Your task to perform on an android device: empty trash in google photos Image 0: 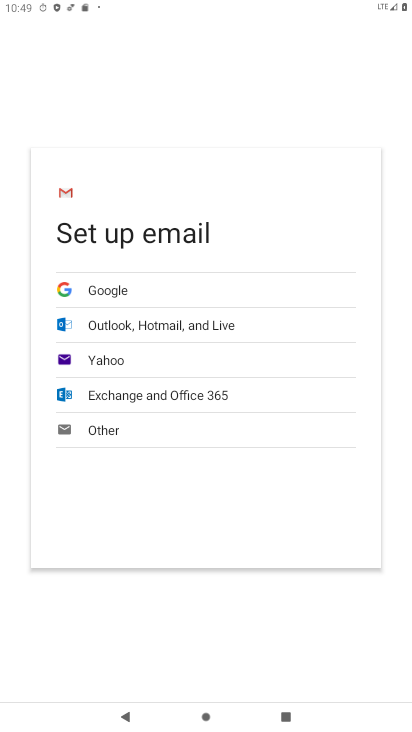
Step 0: press back button
Your task to perform on an android device: empty trash in google photos Image 1: 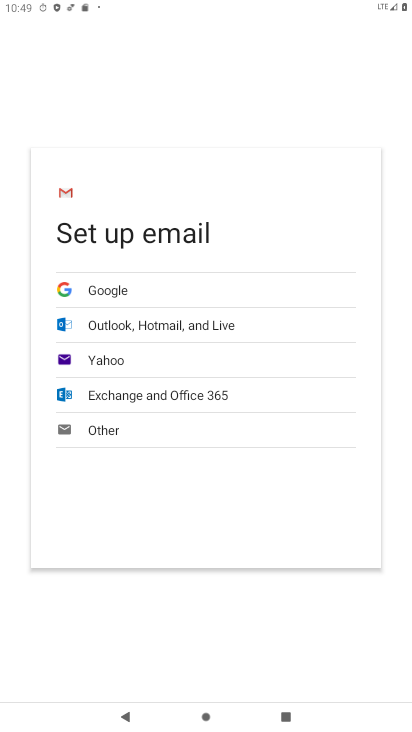
Step 1: press back button
Your task to perform on an android device: empty trash in google photos Image 2: 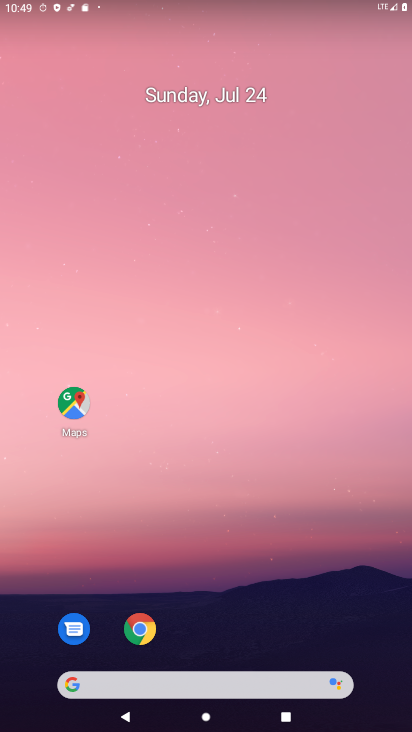
Step 2: drag from (270, 470) to (270, 194)
Your task to perform on an android device: empty trash in google photos Image 3: 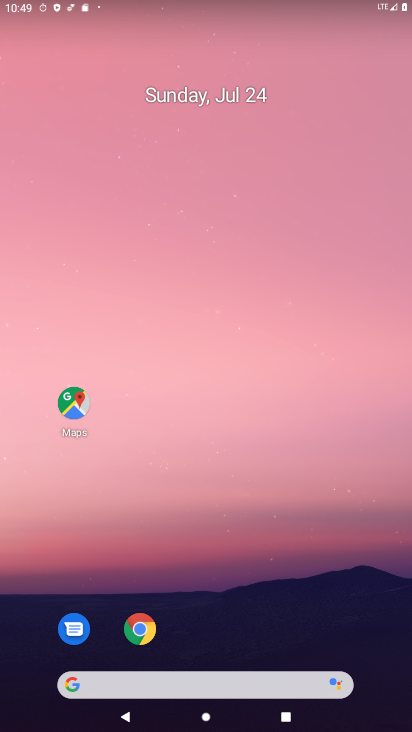
Step 3: drag from (239, 631) to (138, 351)
Your task to perform on an android device: empty trash in google photos Image 4: 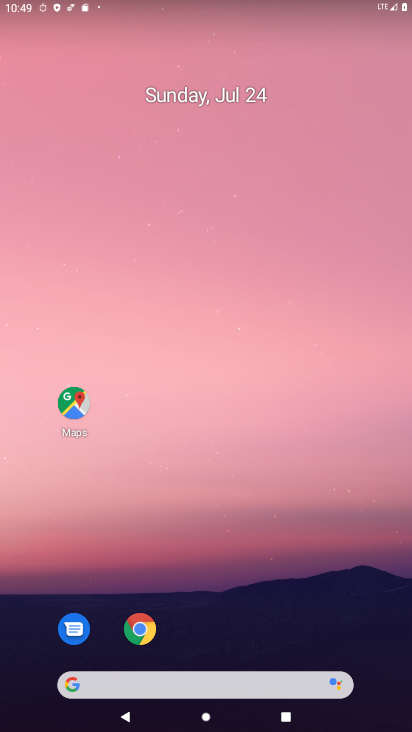
Step 4: drag from (215, 608) to (116, 198)
Your task to perform on an android device: empty trash in google photos Image 5: 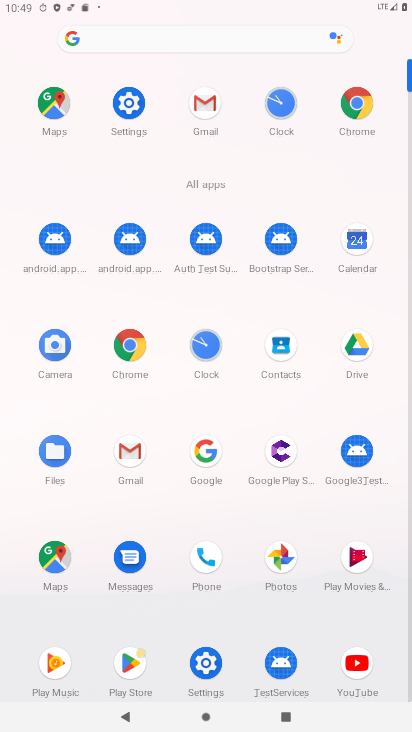
Step 5: drag from (199, 487) to (170, 163)
Your task to perform on an android device: empty trash in google photos Image 6: 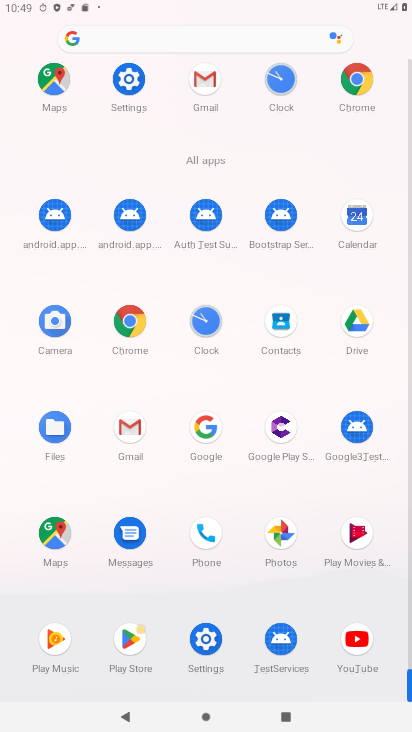
Step 6: click (287, 531)
Your task to perform on an android device: empty trash in google photos Image 7: 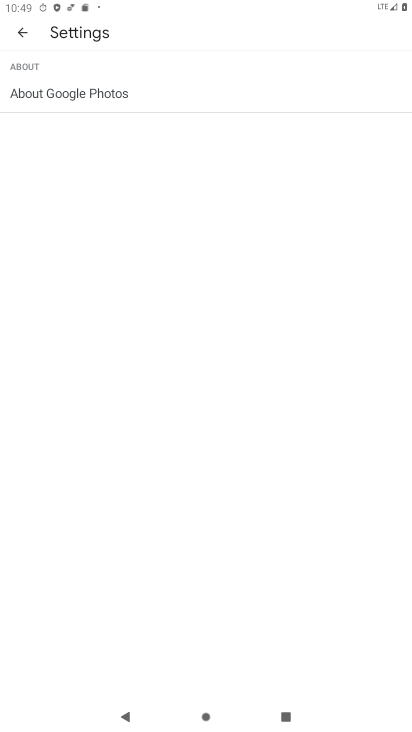
Step 7: click (22, 39)
Your task to perform on an android device: empty trash in google photos Image 8: 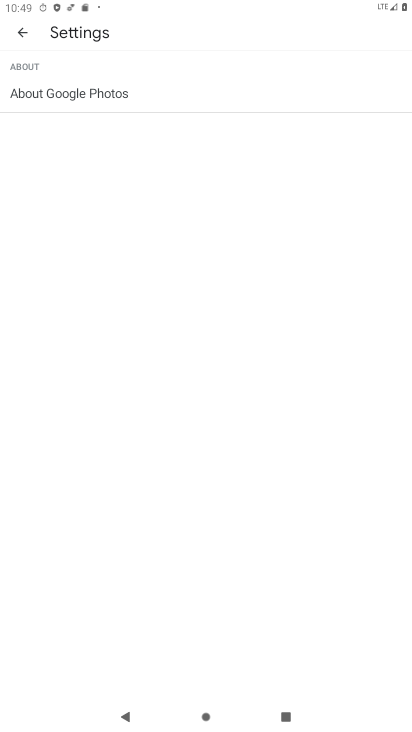
Step 8: click (20, 35)
Your task to perform on an android device: empty trash in google photos Image 9: 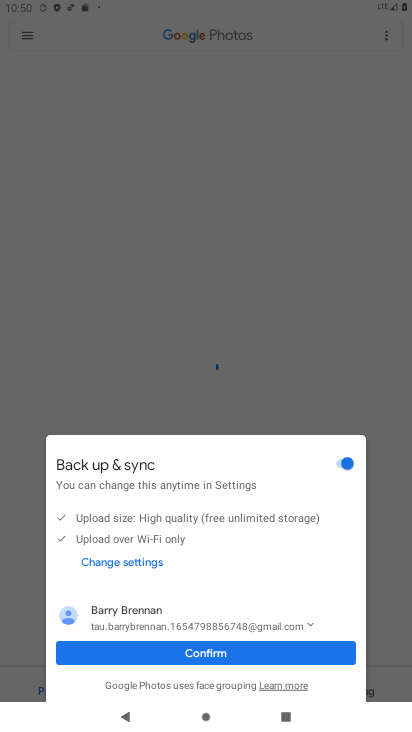
Step 9: click (209, 651)
Your task to perform on an android device: empty trash in google photos Image 10: 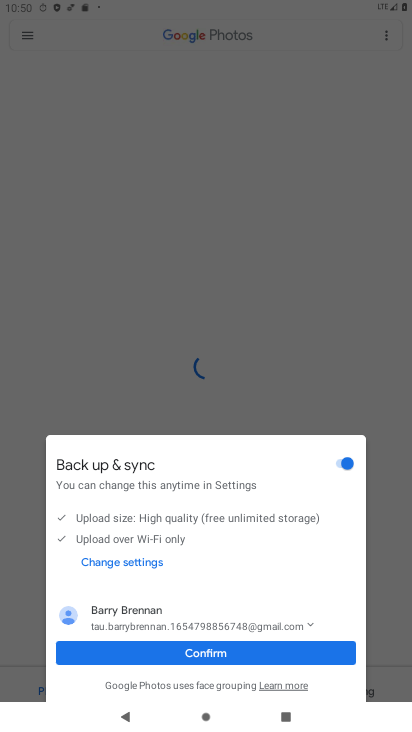
Step 10: click (209, 651)
Your task to perform on an android device: empty trash in google photos Image 11: 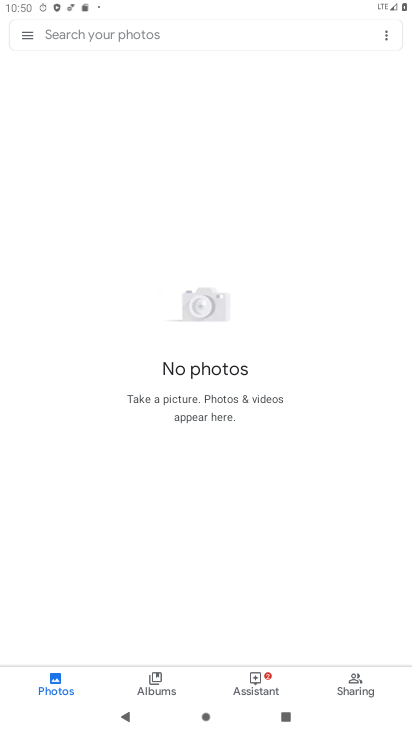
Step 11: click (23, 32)
Your task to perform on an android device: empty trash in google photos Image 12: 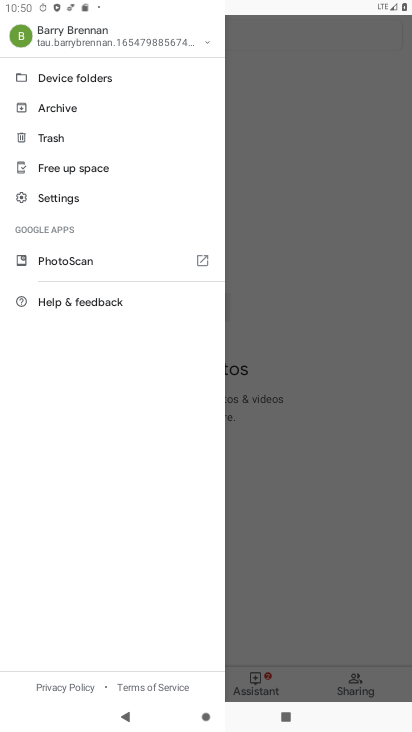
Step 12: click (59, 135)
Your task to perform on an android device: empty trash in google photos Image 13: 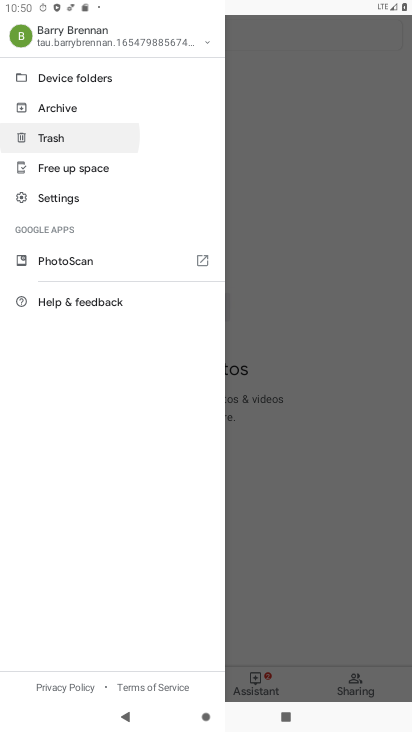
Step 13: click (59, 135)
Your task to perform on an android device: empty trash in google photos Image 14: 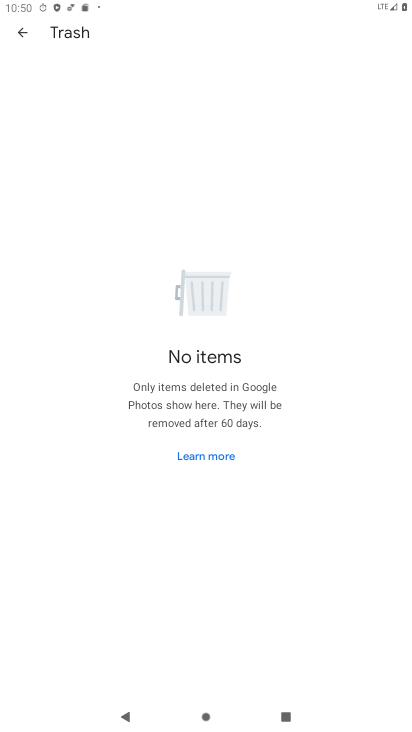
Step 14: task complete